Your task to perform on an android device: Open settings Image 0: 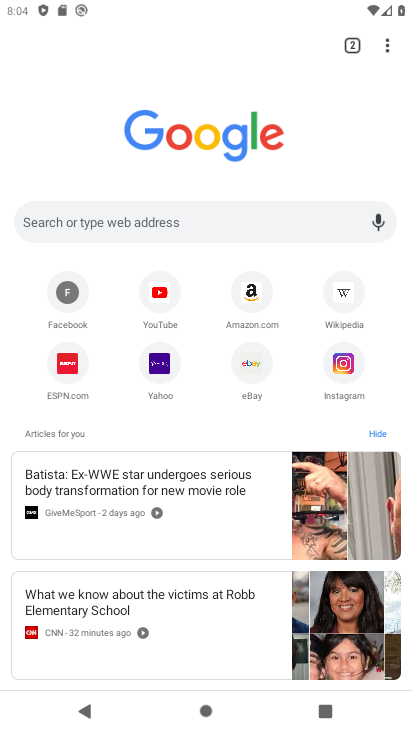
Step 0: press home button
Your task to perform on an android device: Open settings Image 1: 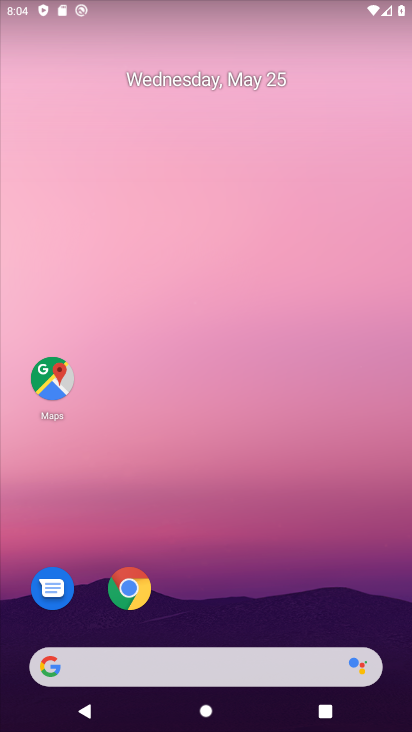
Step 1: drag from (60, 474) to (226, 165)
Your task to perform on an android device: Open settings Image 2: 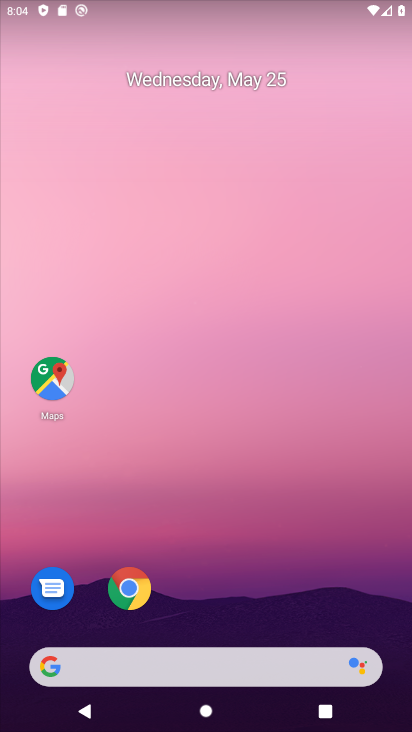
Step 2: drag from (9, 579) to (274, 127)
Your task to perform on an android device: Open settings Image 3: 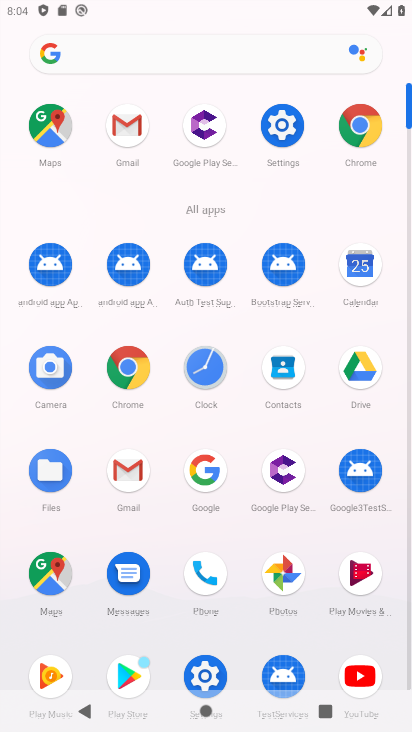
Step 3: click (283, 126)
Your task to perform on an android device: Open settings Image 4: 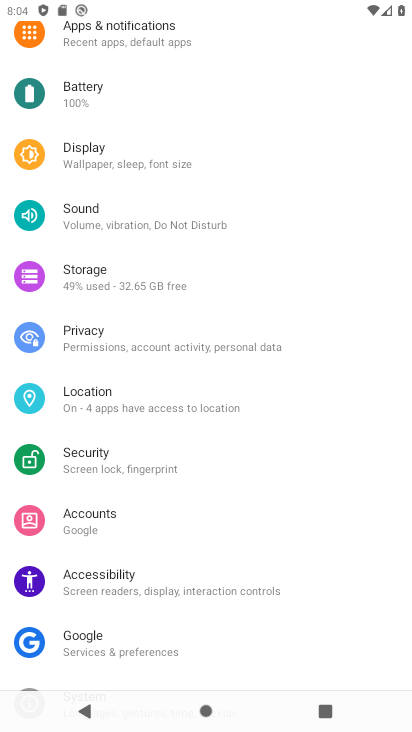
Step 4: task complete